Your task to perform on an android device: Search for "sony triple a" on bestbuy.com, select the first entry, and add it to the cart. Image 0: 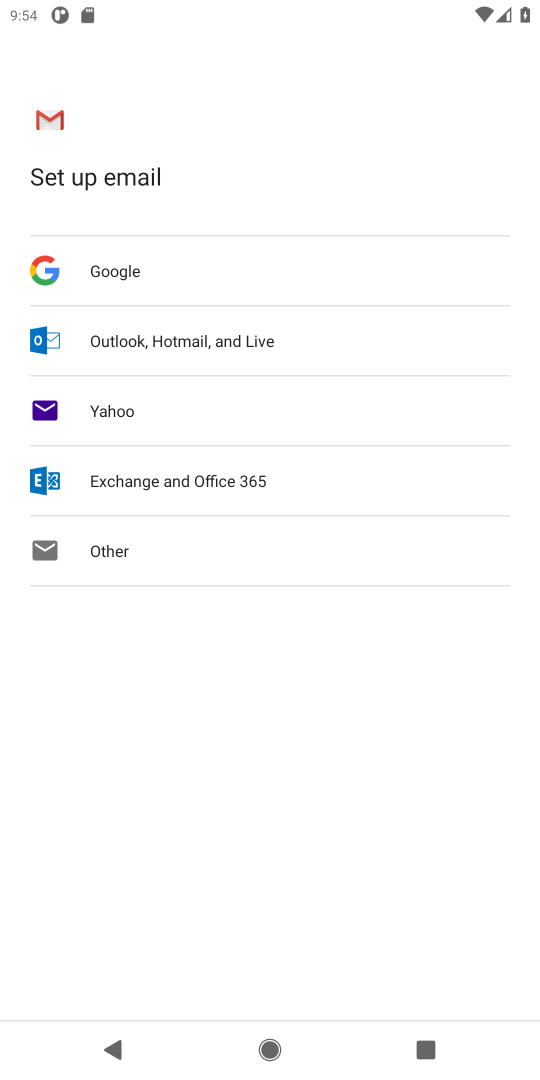
Step 0: press home button
Your task to perform on an android device: Search for "sony triple a" on bestbuy.com, select the first entry, and add it to the cart. Image 1: 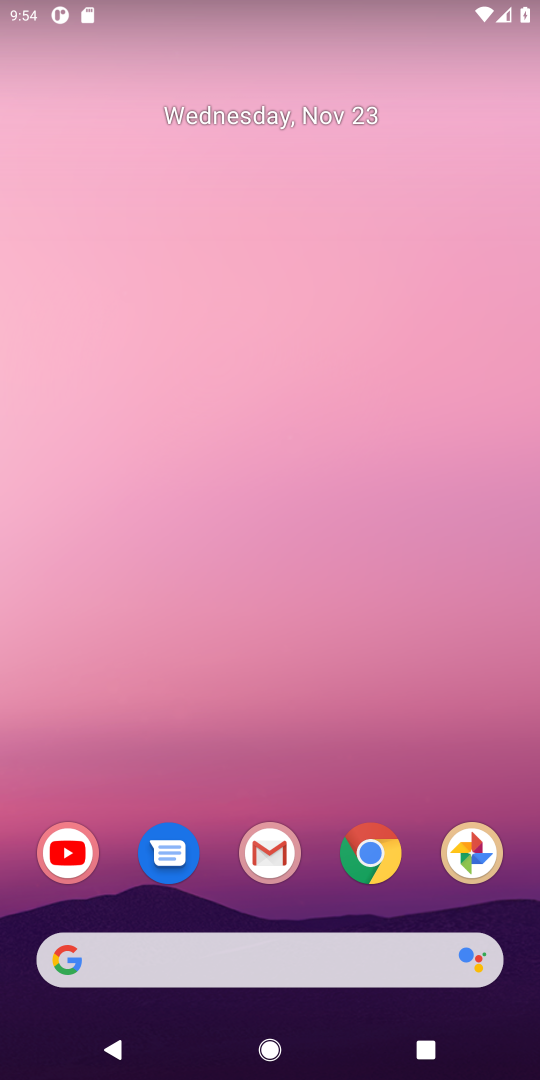
Step 1: click (375, 873)
Your task to perform on an android device: Search for "sony triple a" on bestbuy.com, select the first entry, and add it to the cart. Image 2: 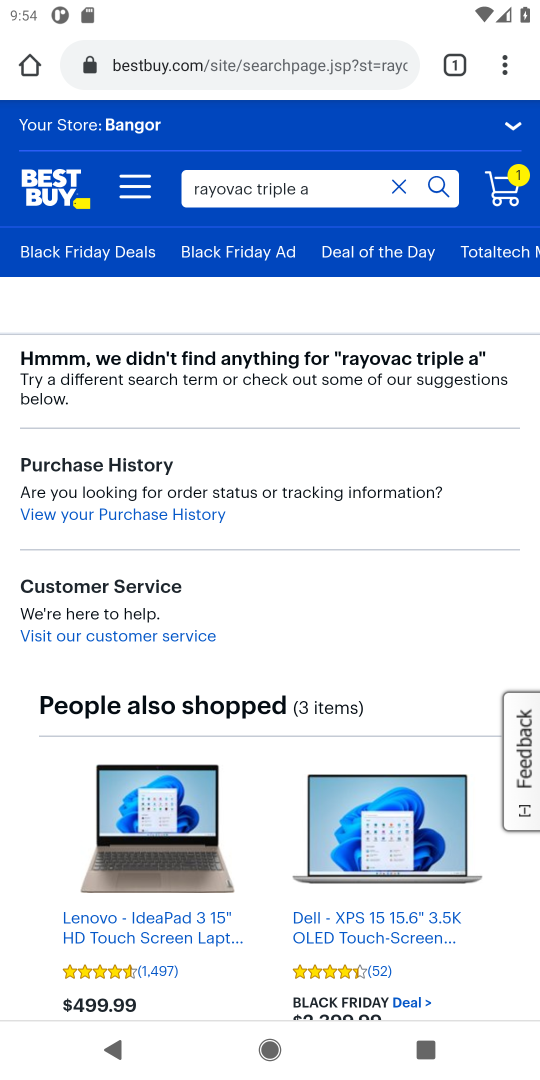
Step 2: click (403, 188)
Your task to perform on an android device: Search for "sony triple a" on bestbuy.com, select the first entry, and add it to the cart. Image 3: 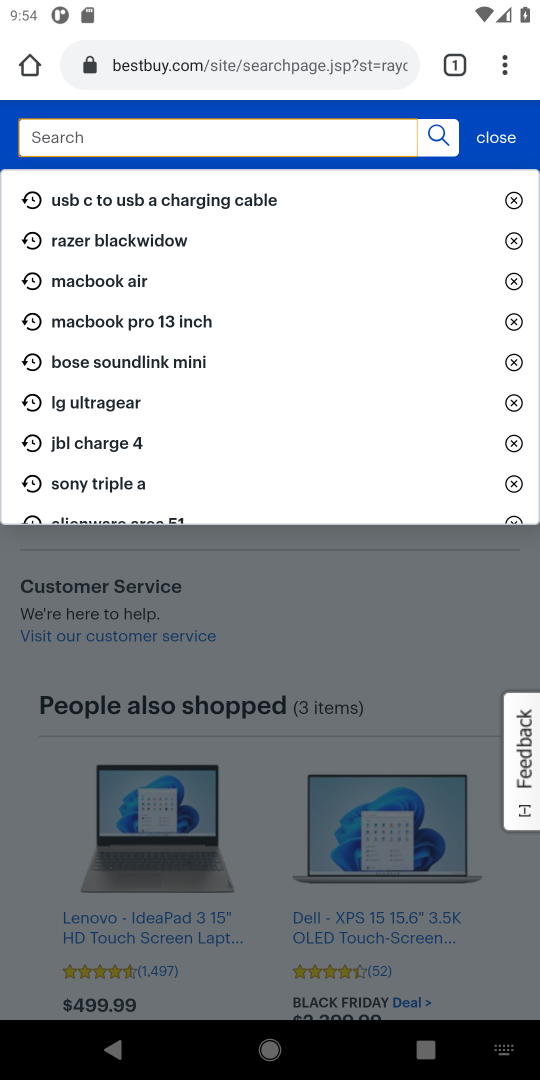
Step 3: type "sony triple a"
Your task to perform on an android device: Search for "sony triple a" on bestbuy.com, select the first entry, and add it to the cart. Image 4: 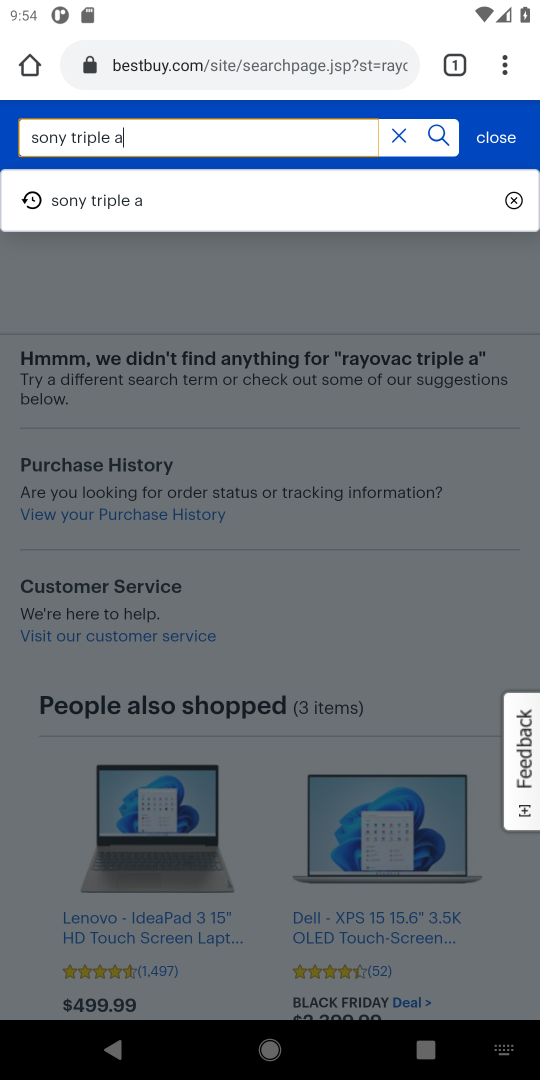
Step 4: click (113, 212)
Your task to perform on an android device: Search for "sony triple a" on bestbuy.com, select the first entry, and add it to the cart. Image 5: 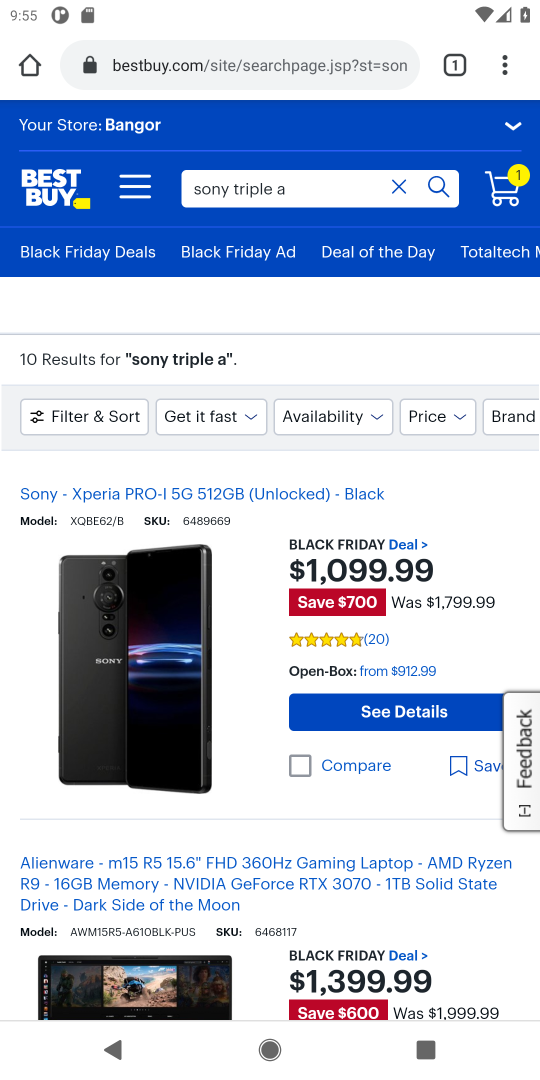
Step 5: task complete